Your task to perform on an android device: Open the stopwatch Image 0: 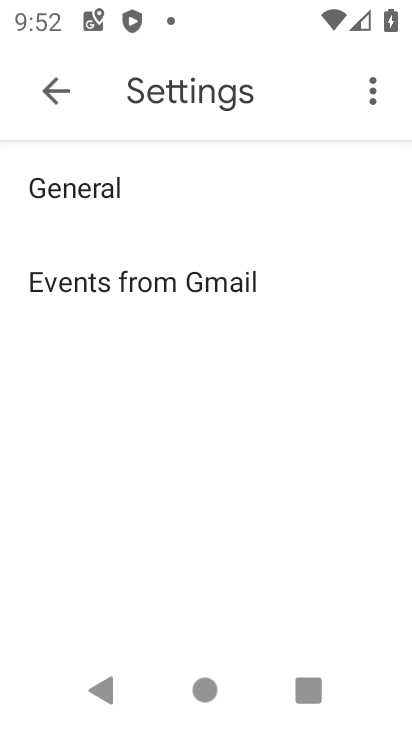
Step 0: press home button
Your task to perform on an android device: Open the stopwatch Image 1: 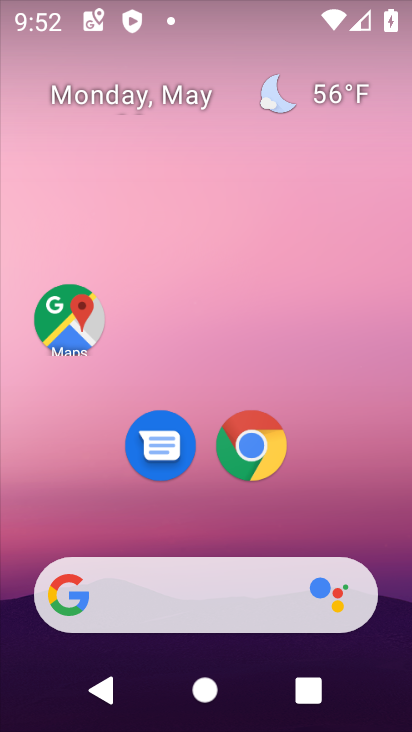
Step 1: drag from (69, 549) to (146, 7)
Your task to perform on an android device: Open the stopwatch Image 2: 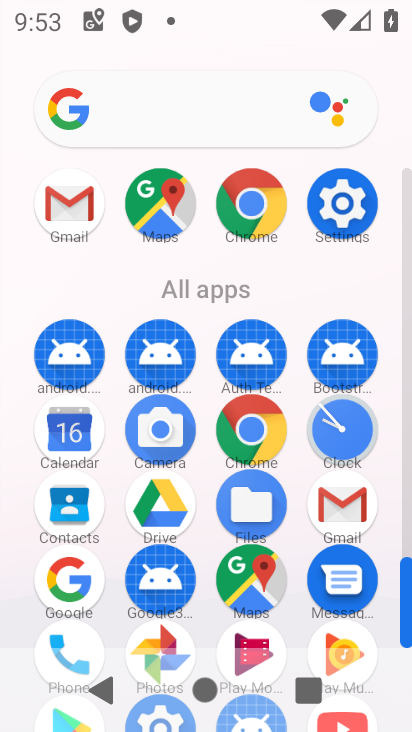
Step 2: click (344, 438)
Your task to perform on an android device: Open the stopwatch Image 3: 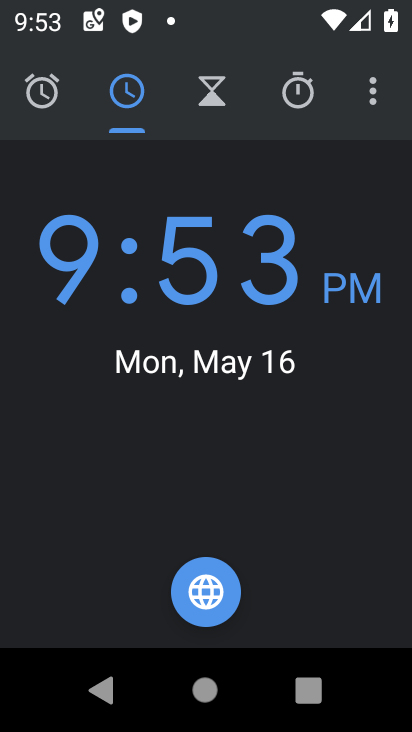
Step 3: click (315, 120)
Your task to perform on an android device: Open the stopwatch Image 4: 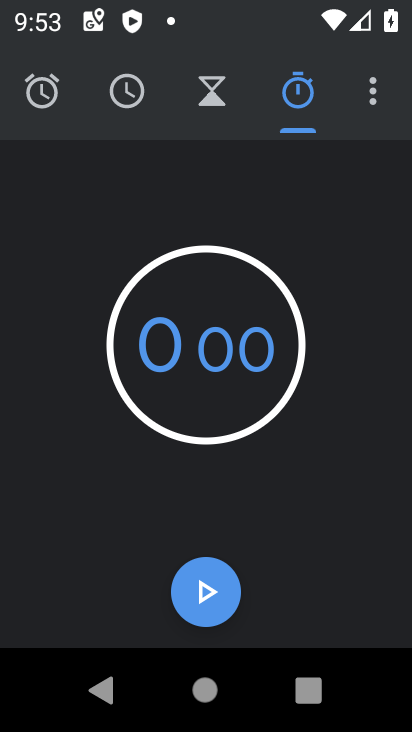
Step 4: click (221, 610)
Your task to perform on an android device: Open the stopwatch Image 5: 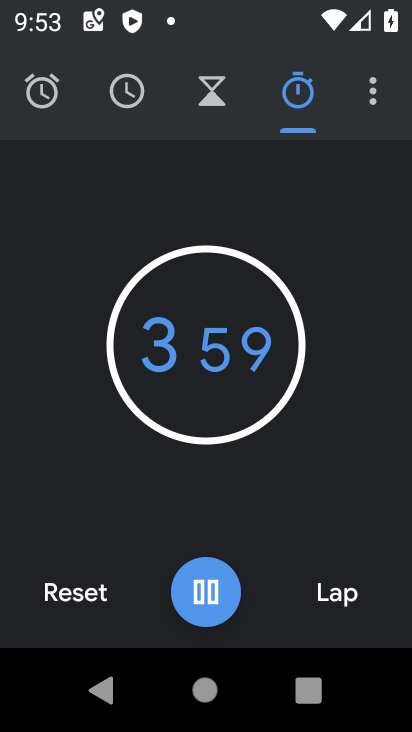
Step 5: task complete